Your task to perform on an android device: Go to location settings Image 0: 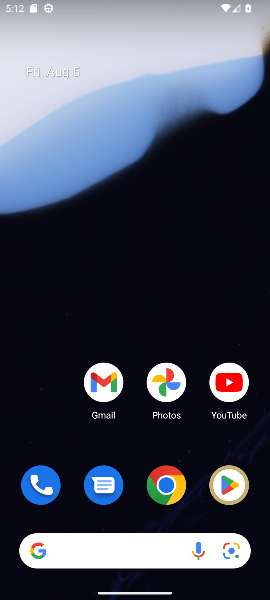
Step 0: drag from (196, 343) to (173, 6)
Your task to perform on an android device: Go to location settings Image 1: 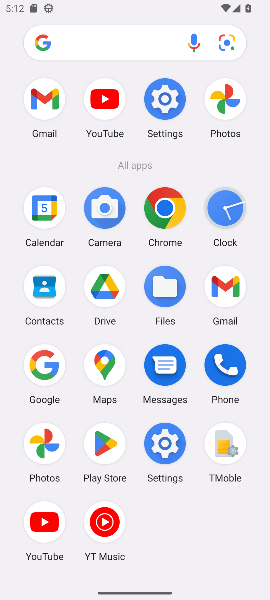
Step 1: click (166, 453)
Your task to perform on an android device: Go to location settings Image 2: 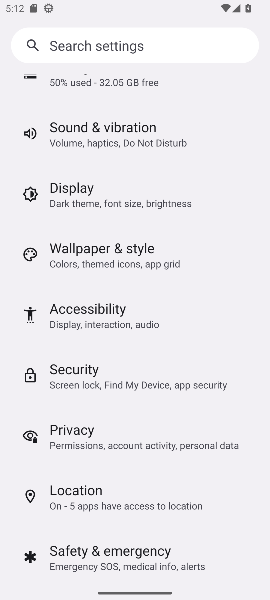
Step 2: click (141, 505)
Your task to perform on an android device: Go to location settings Image 3: 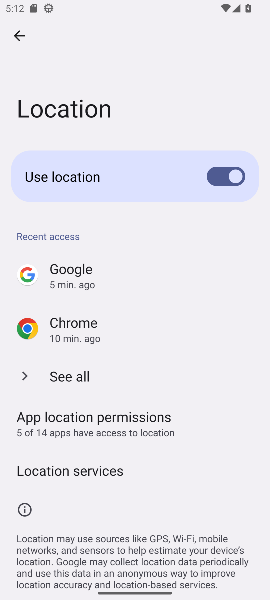
Step 3: task complete